Your task to perform on an android device: Open Google Chrome and open the bookmarks view Image 0: 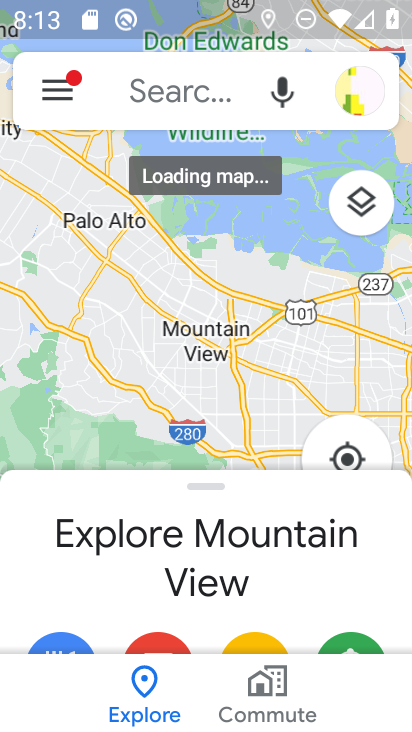
Step 0: press home button
Your task to perform on an android device: Open Google Chrome and open the bookmarks view Image 1: 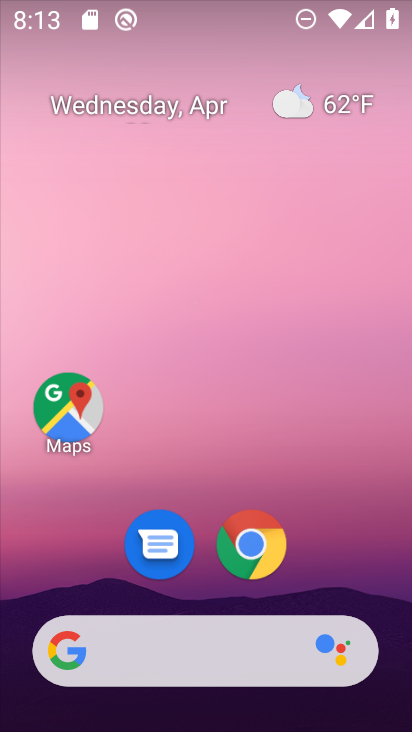
Step 1: click (241, 556)
Your task to perform on an android device: Open Google Chrome and open the bookmarks view Image 2: 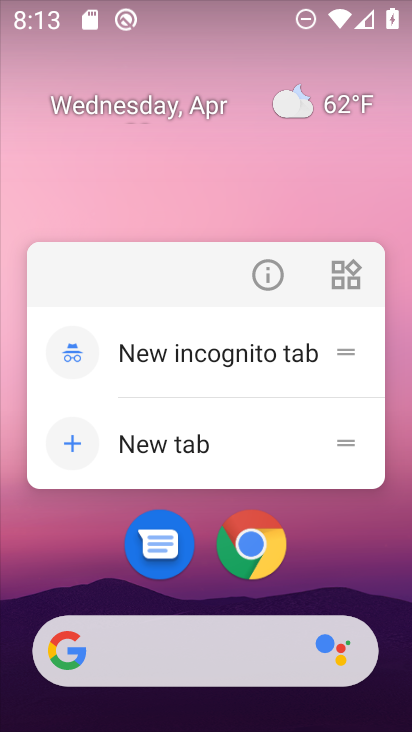
Step 2: click (259, 530)
Your task to perform on an android device: Open Google Chrome and open the bookmarks view Image 3: 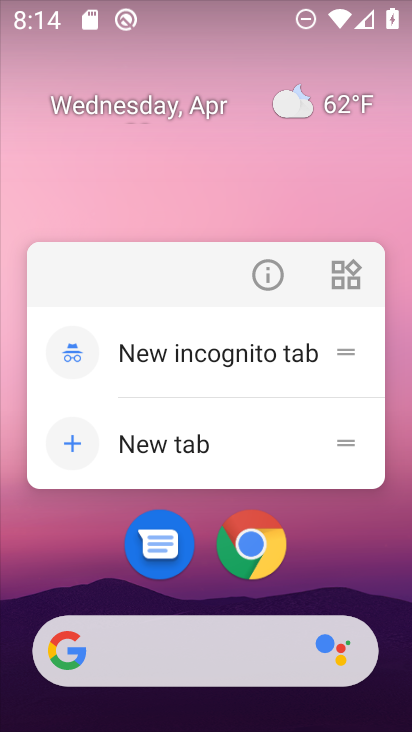
Step 3: click (262, 536)
Your task to perform on an android device: Open Google Chrome and open the bookmarks view Image 4: 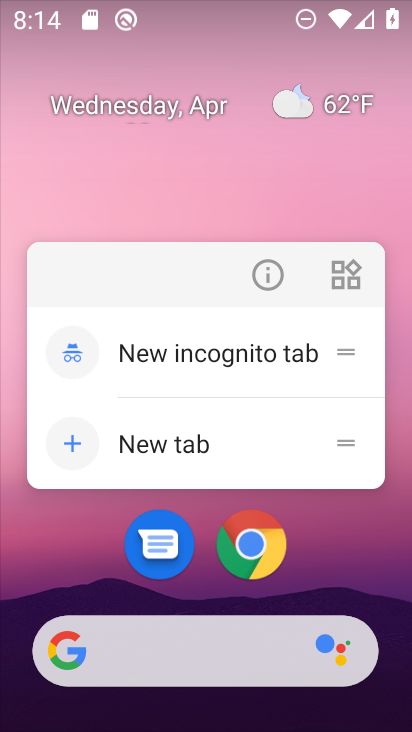
Step 4: click (282, 532)
Your task to perform on an android device: Open Google Chrome and open the bookmarks view Image 5: 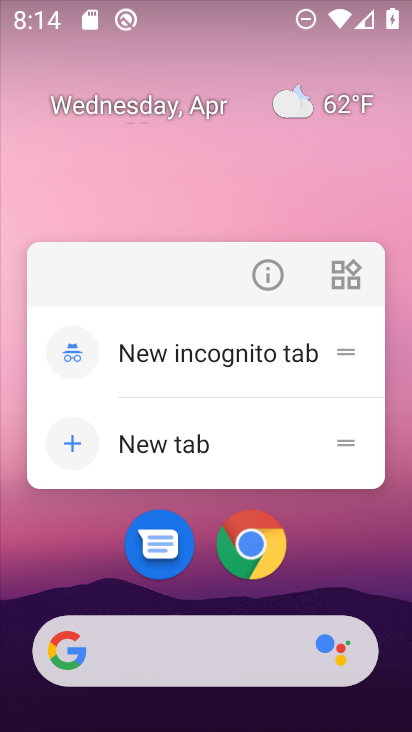
Step 5: click (271, 550)
Your task to perform on an android device: Open Google Chrome and open the bookmarks view Image 6: 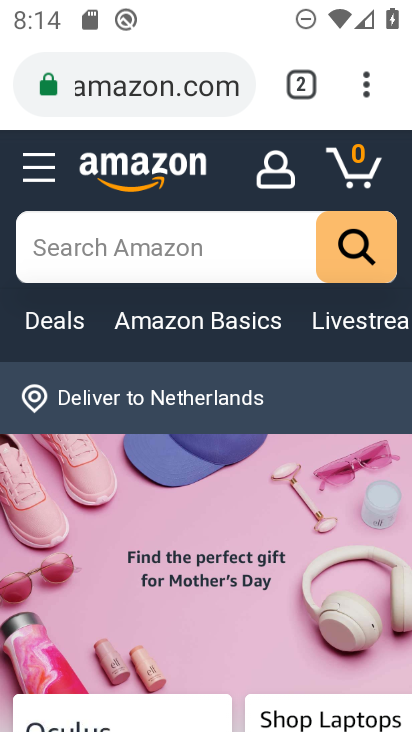
Step 6: task complete